Your task to perform on an android device: Open Chrome and go to settings Image 0: 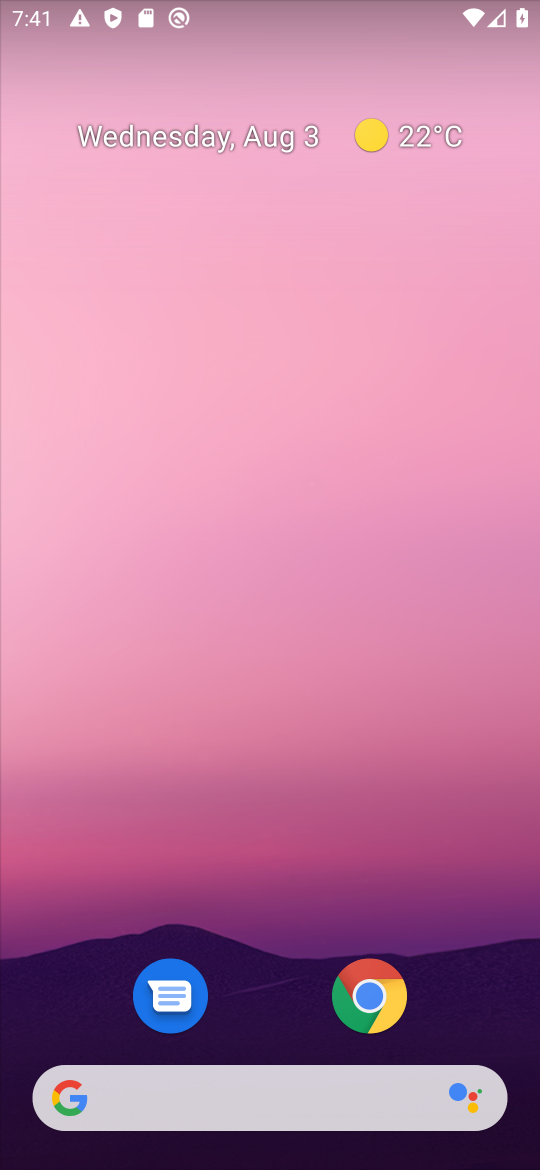
Step 0: click (385, 997)
Your task to perform on an android device: Open Chrome and go to settings Image 1: 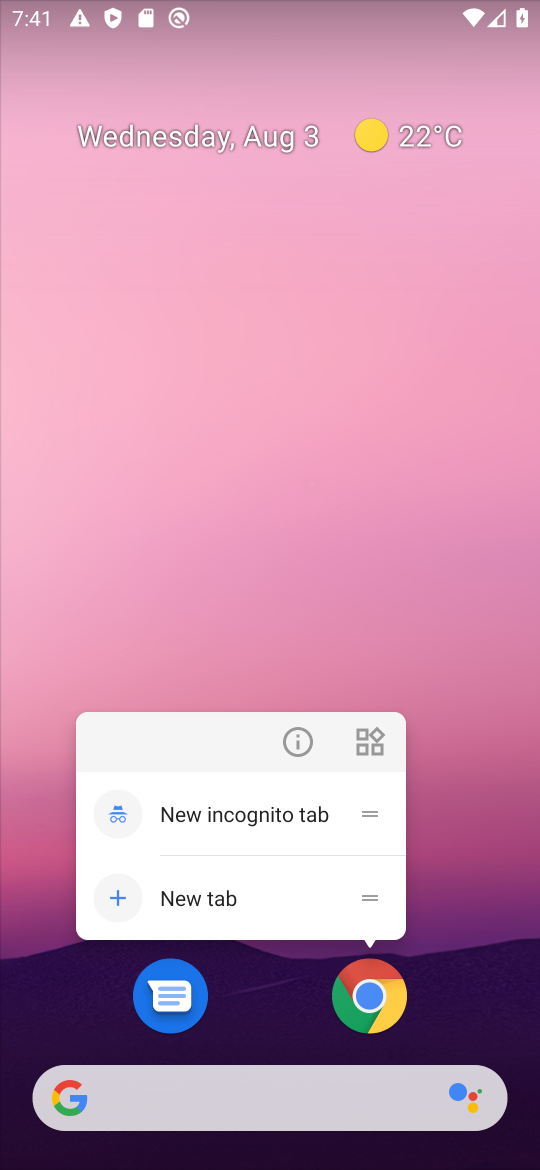
Step 1: click (362, 988)
Your task to perform on an android device: Open Chrome and go to settings Image 2: 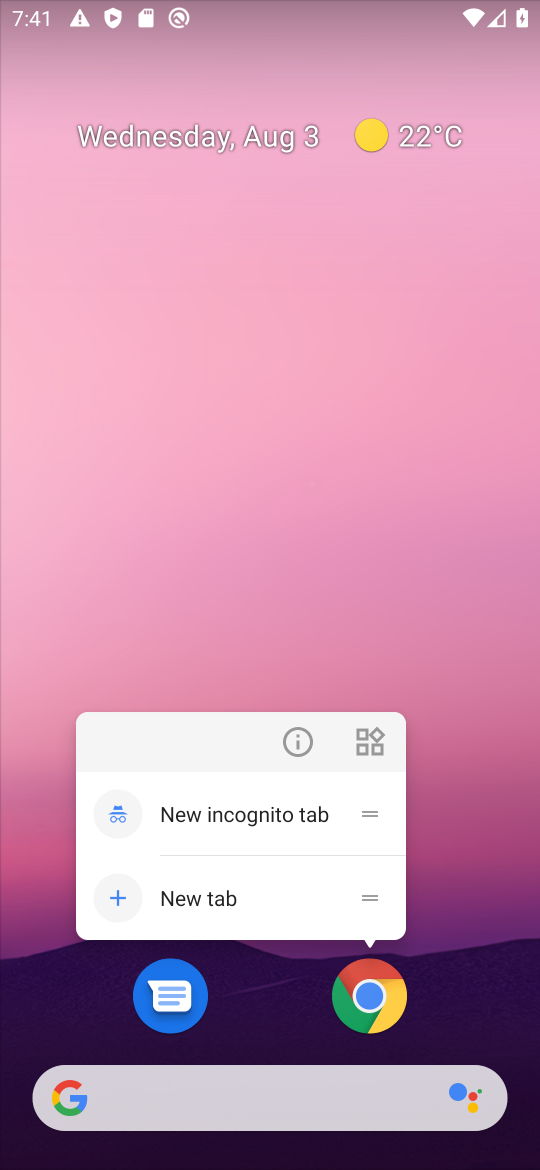
Step 2: click (365, 988)
Your task to perform on an android device: Open Chrome and go to settings Image 3: 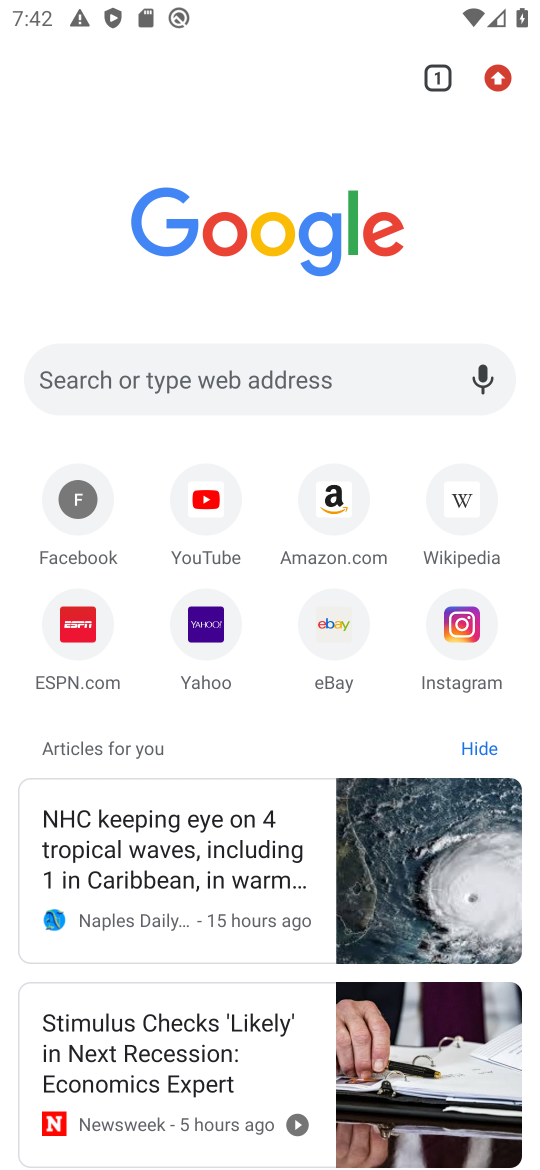
Step 3: click (507, 67)
Your task to perform on an android device: Open Chrome and go to settings Image 4: 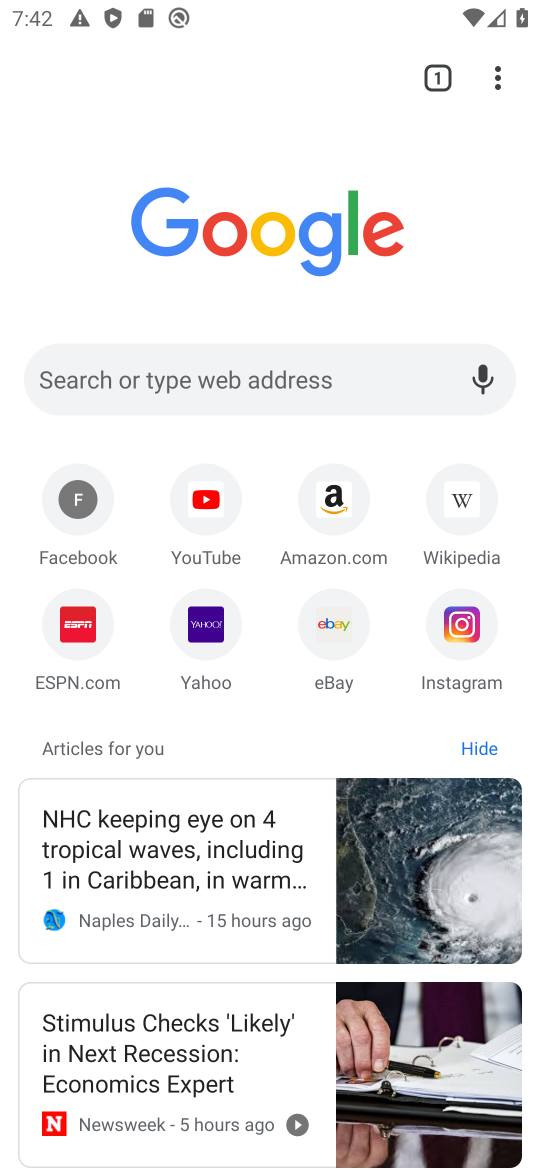
Step 4: click (502, 87)
Your task to perform on an android device: Open Chrome and go to settings Image 5: 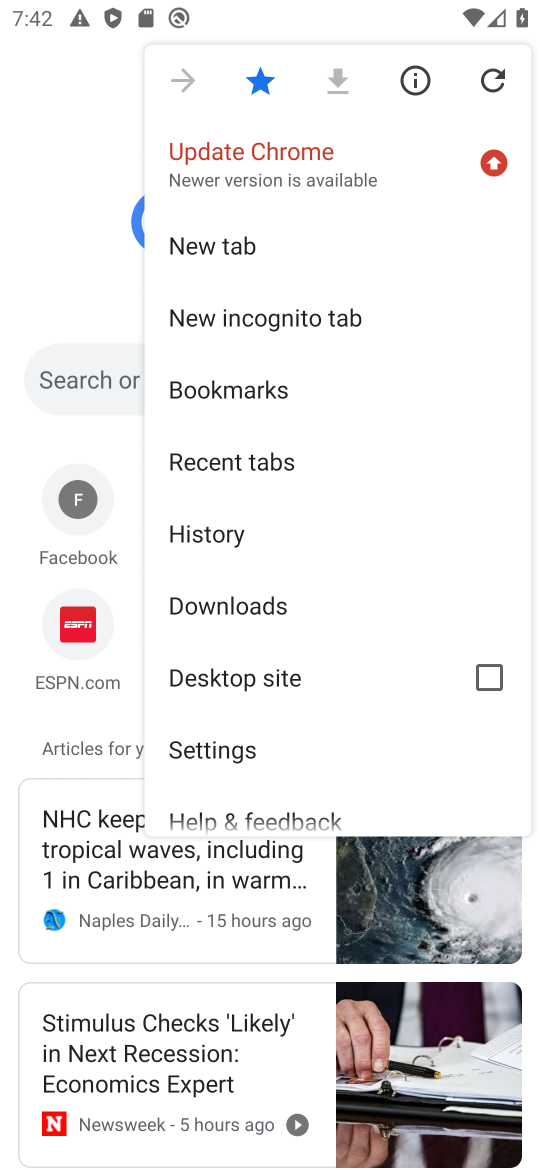
Step 5: click (258, 742)
Your task to perform on an android device: Open Chrome and go to settings Image 6: 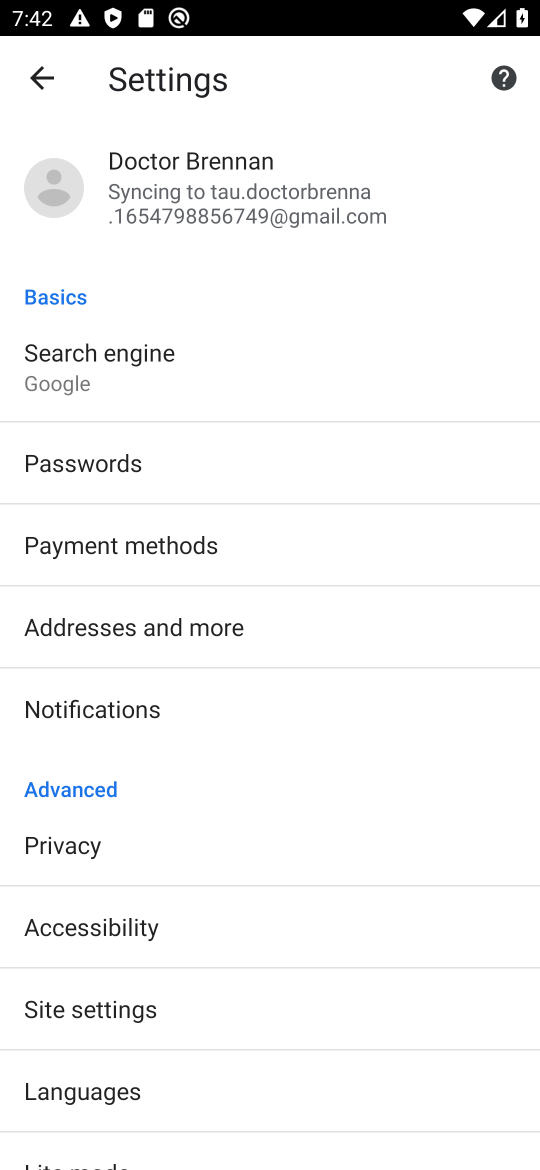
Step 6: task complete